Your task to perform on an android device: Open Google Chrome and open the bookmarks view Image 0: 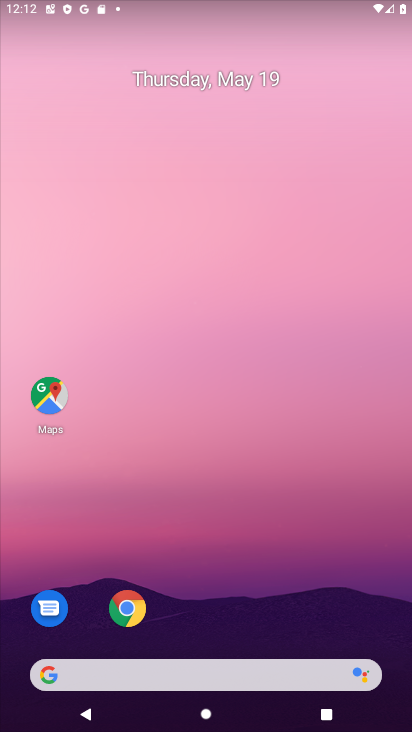
Step 0: click (136, 605)
Your task to perform on an android device: Open Google Chrome and open the bookmarks view Image 1: 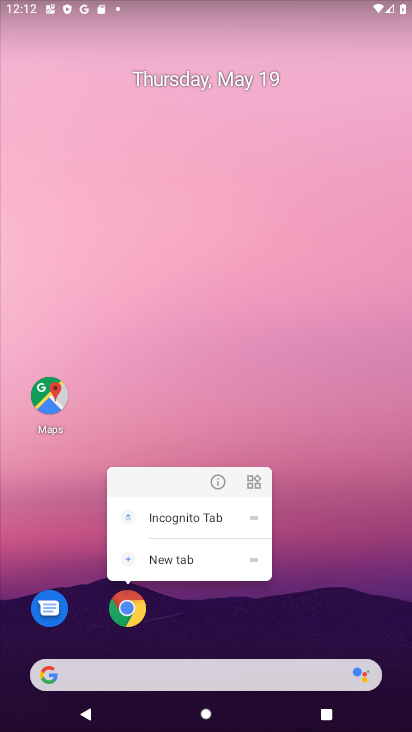
Step 1: click (127, 608)
Your task to perform on an android device: Open Google Chrome and open the bookmarks view Image 2: 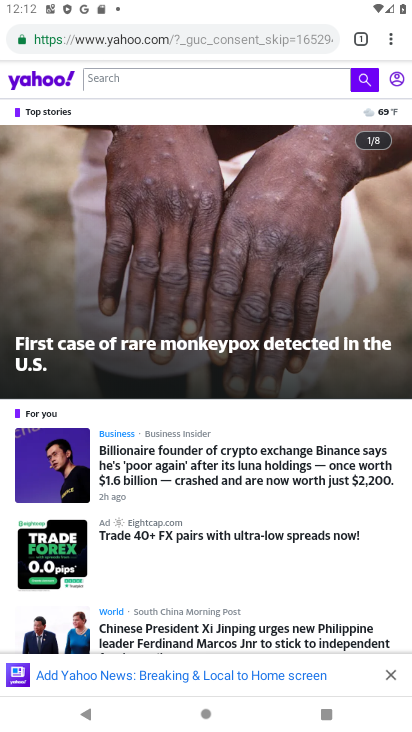
Step 2: click (395, 34)
Your task to perform on an android device: Open Google Chrome and open the bookmarks view Image 3: 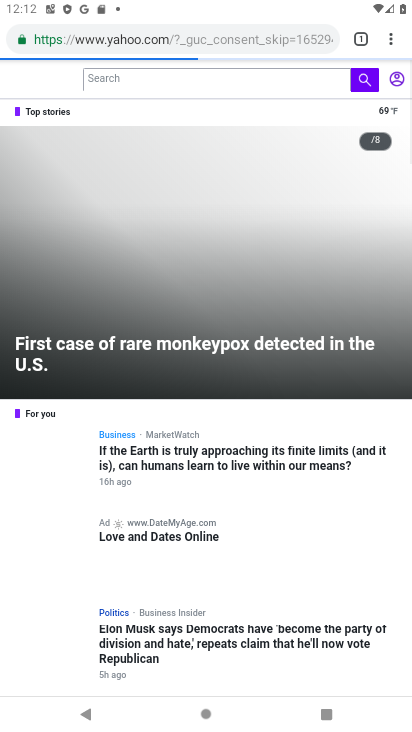
Step 3: click (390, 37)
Your task to perform on an android device: Open Google Chrome and open the bookmarks view Image 4: 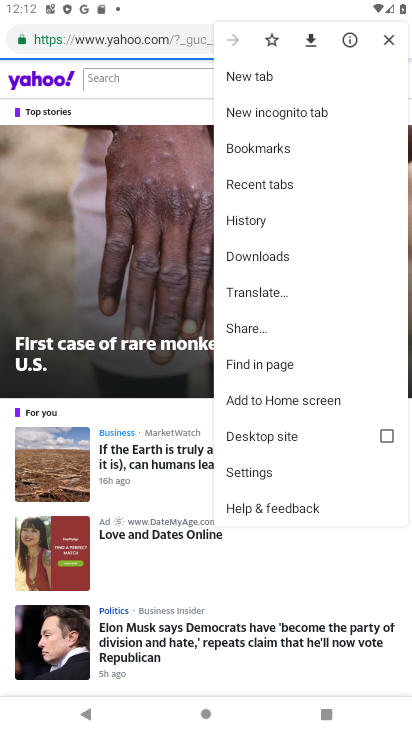
Step 4: click (282, 148)
Your task to perform on an android device: Open Google Chrome and open the bookmarks view Image 5: 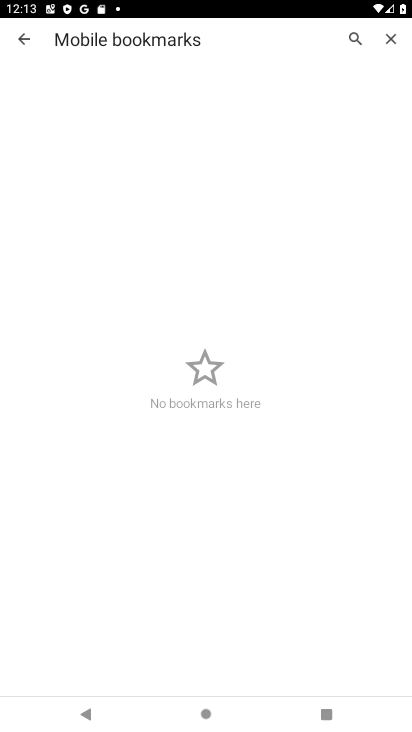
Step 5: task complete